Your task to perform on an android device: Open privacy settings Image 0: 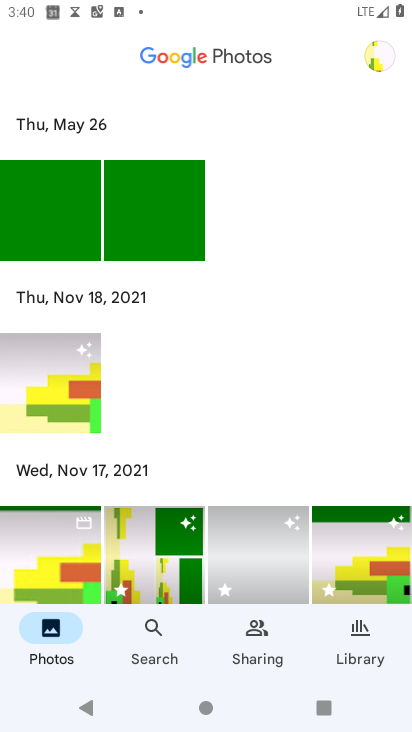
Step 0: press home button
Your task to perform on an android device: Open privacy settings Image 1: 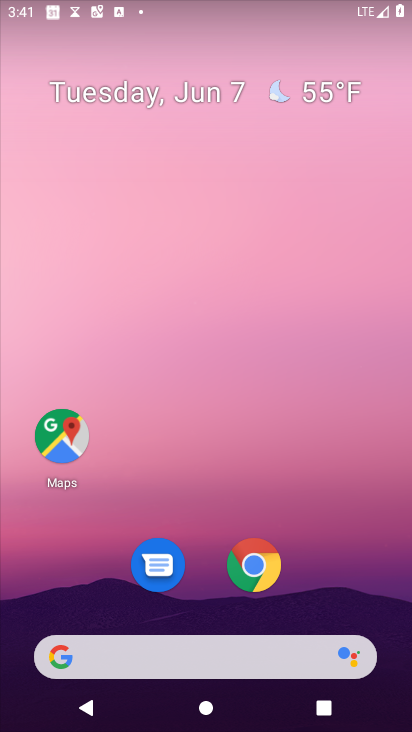
Step 1: drag from (336, 433) to (370, 0)
Your task to perform on an android device: Open privacy settings Image 2: 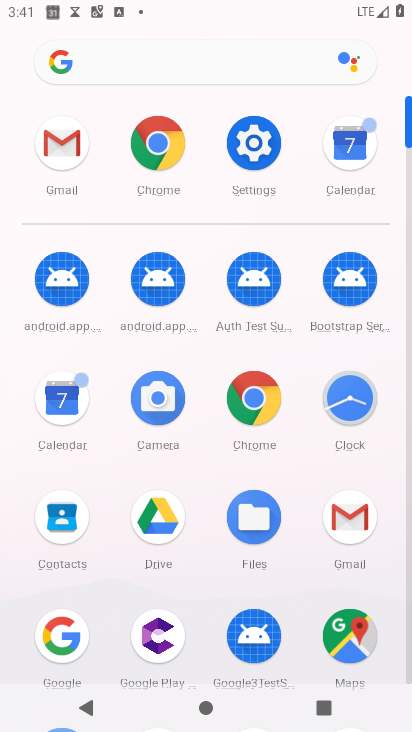
Step 2: click (246, 146)
Your task to perform on an android device: Open privacy settings Image 3: 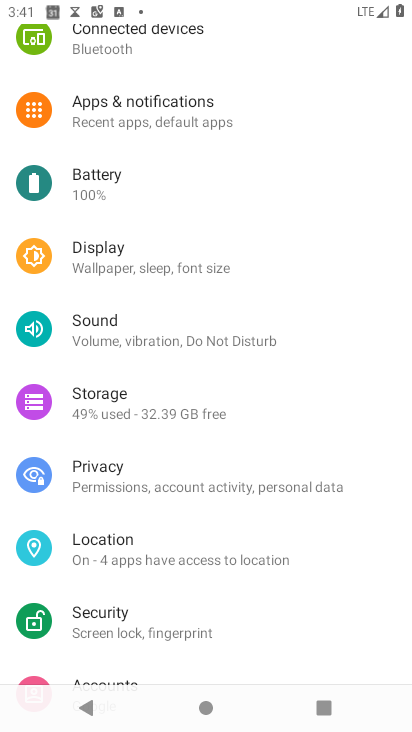
Step 3: click (193, 468)
Your task to perform on an android device: Open privacy settings Image 4: 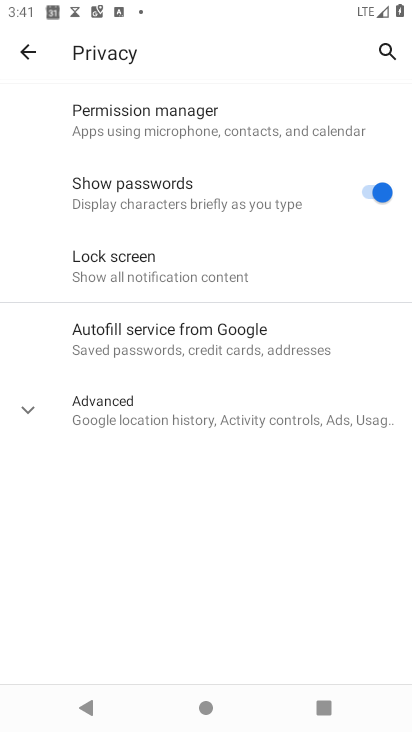
Step 4: task complete